Your task to perform on an android device: Open maps Image 0: 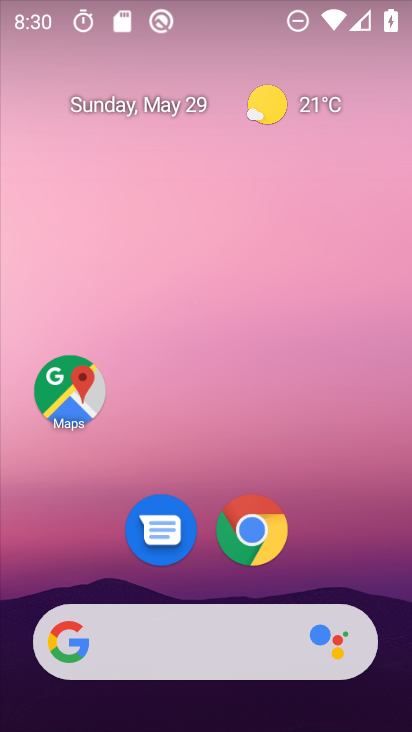
Step 0: drag from (246, 684) to (312, 115)
Your task to perform on an android device: Open maps Image 1: 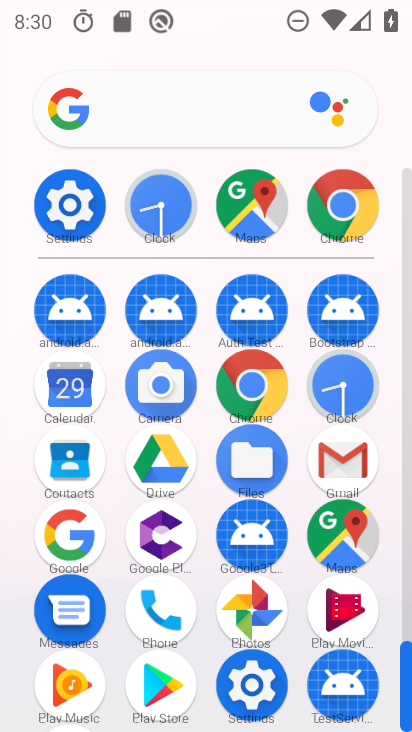
Step 1: click (251, 206)
Your task to perform on an android device: Open maps Image 2: 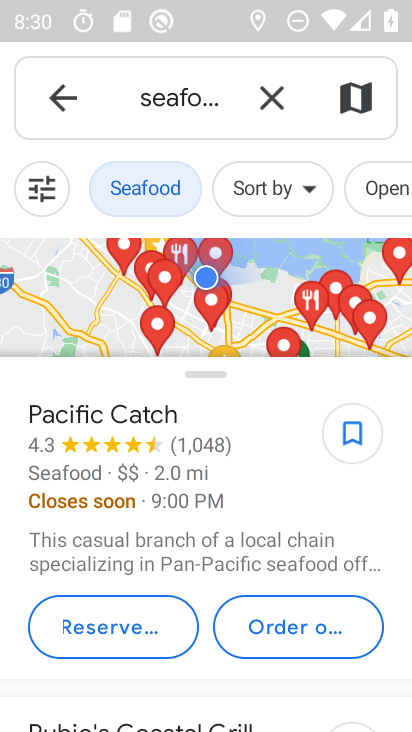
Step 2: click (56, 93)
Your task to perform on an android device: Open maps Image 3: 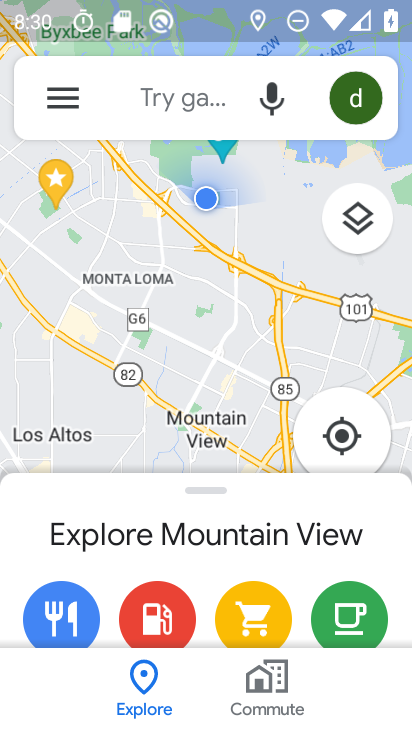
Step 3: click (328, 438)
Your task to perform on an android device: Open maps Image 4: 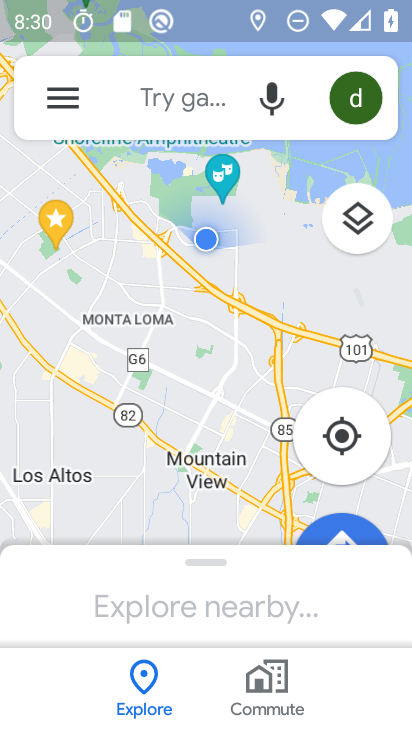
Step 4: task complete